Your task to perform on an android device: turn off notifications in google photos Image 0: 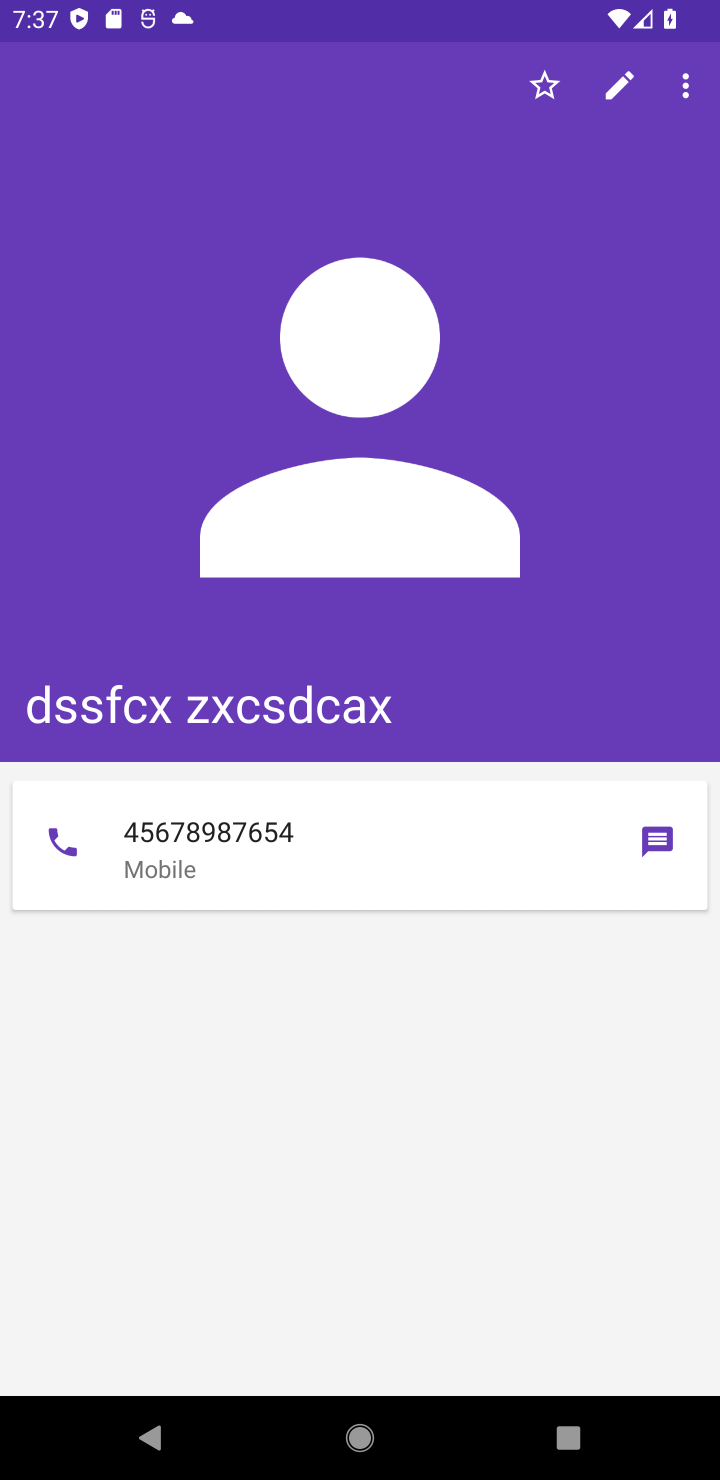
Step 0: press home button
Your task to perform on an android device: turn off notifications in google photos Image 1: 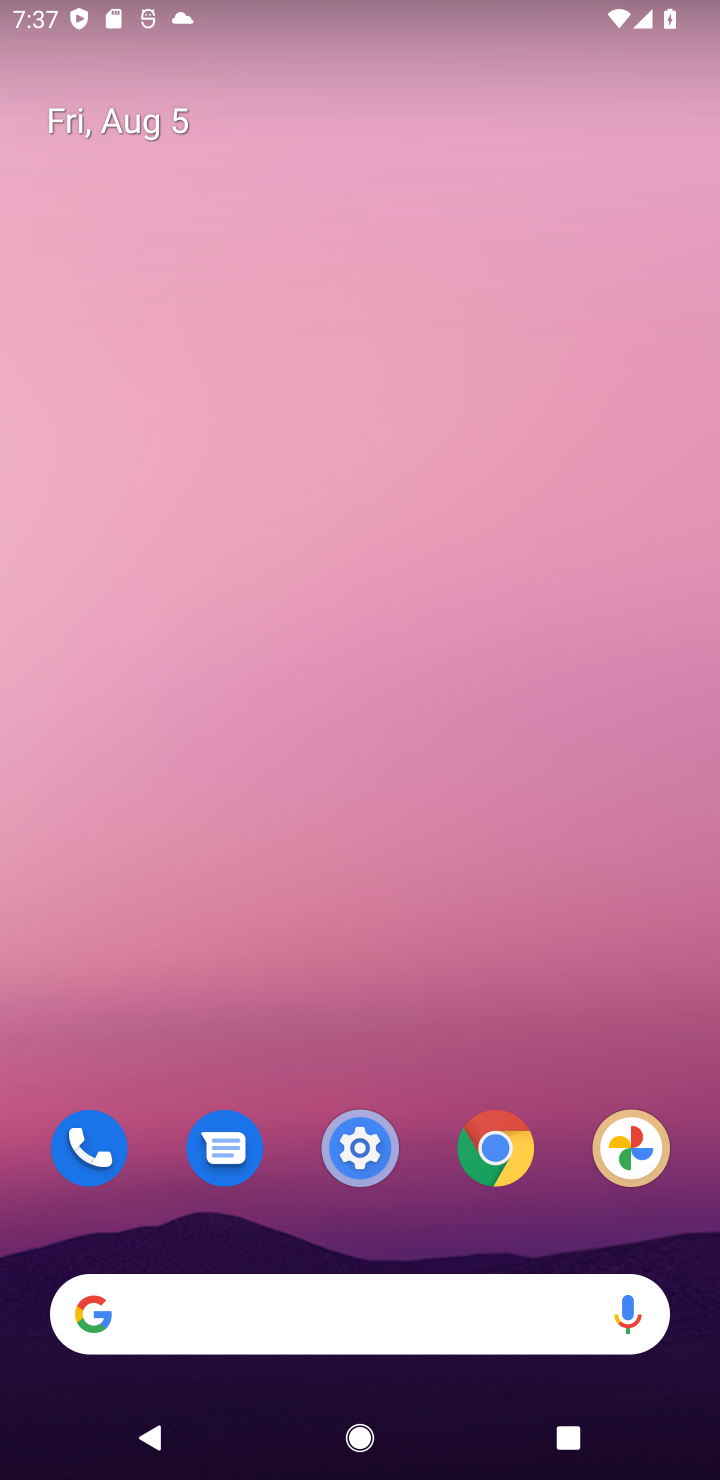
Step 1: click (614, 1166)
Your task to perform on an android device: turn off notifications in google photos Image 2: 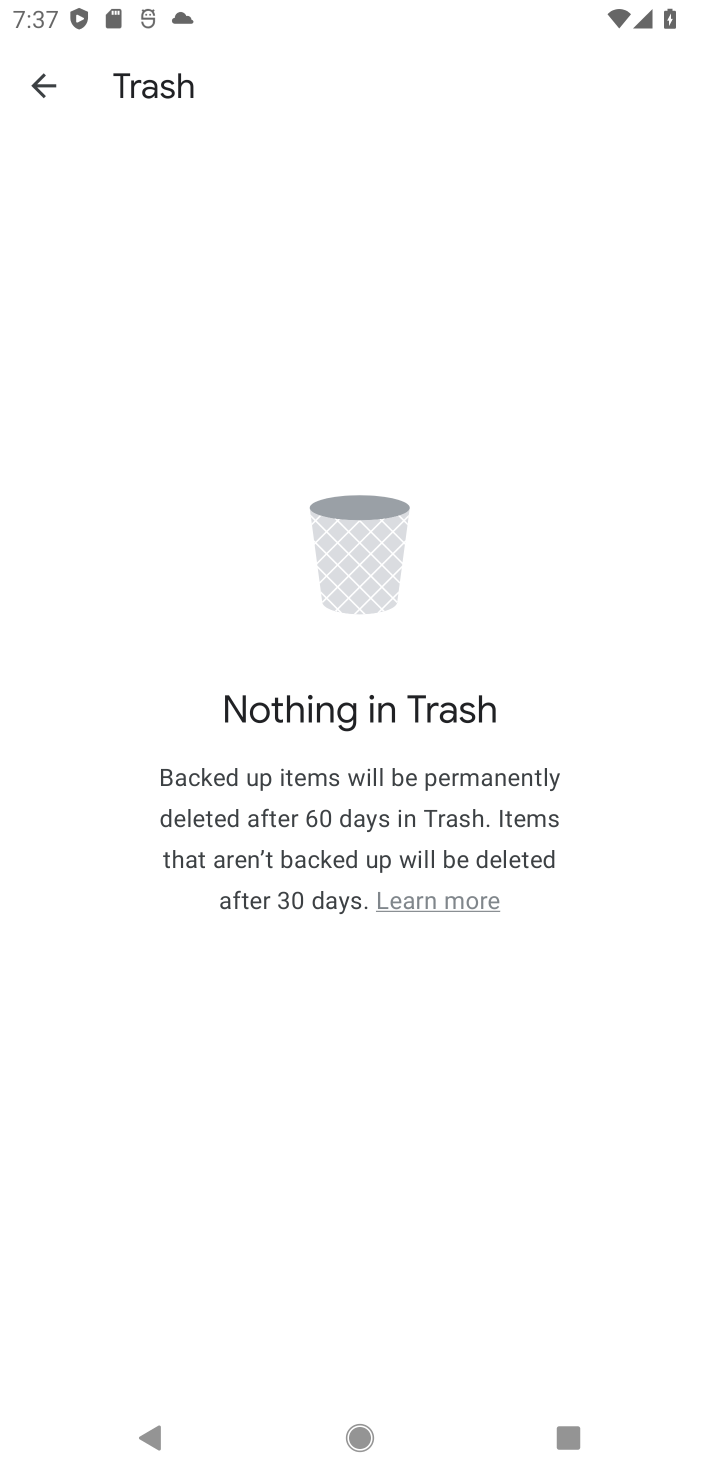
Step 2: task complete